Your task to perform on an android device: Search for Italian restaurants on Maps Image 0: 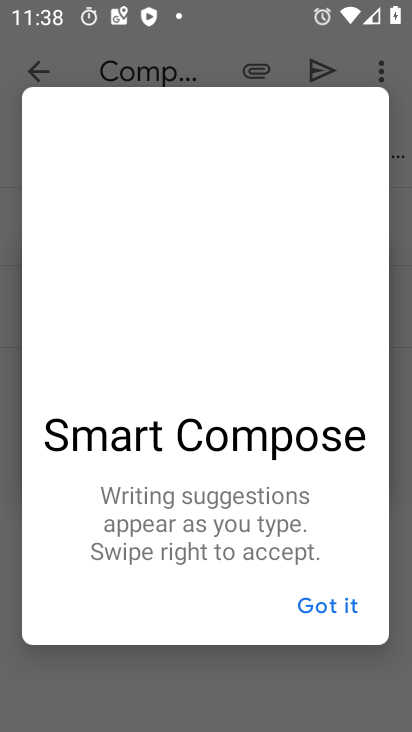
Step 0: press home button
Your task to perform on an android device: Search for Italian restaurants on Maps Image 1: 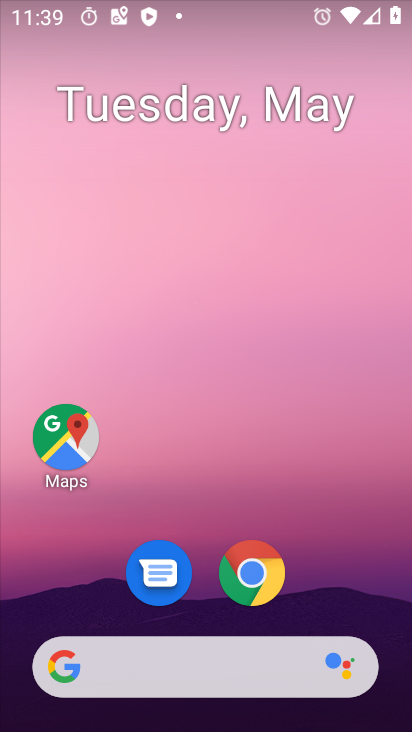
Step 1: drag from (223, 706) to (283, 327)
Your task to perform on an android device: Search for Italian restaurants on Maps Image 2: 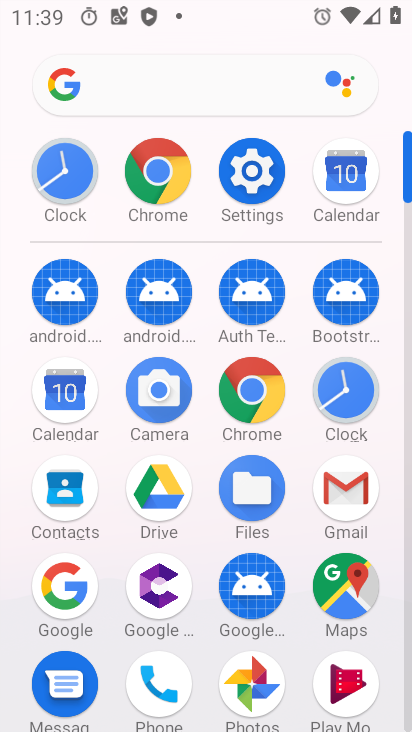
Step 2: click (336, 581)
Your task to perform on an android device: Search for Italian restaurants on Maps Image 3: 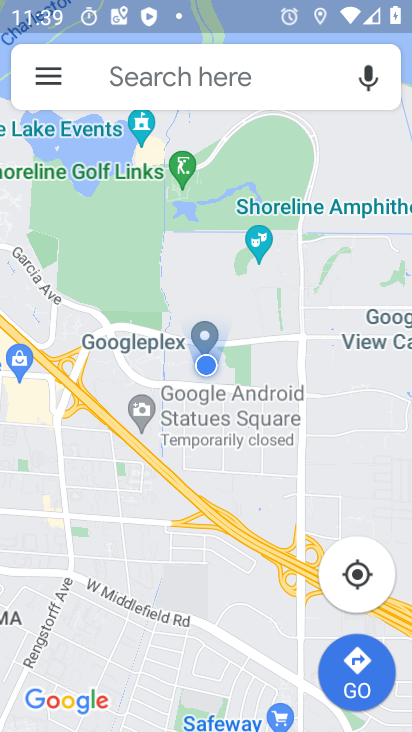
Step 3: click (178, 79)
Your task to perform on an android device: Search for Italian restaurants on Maps Image 4: 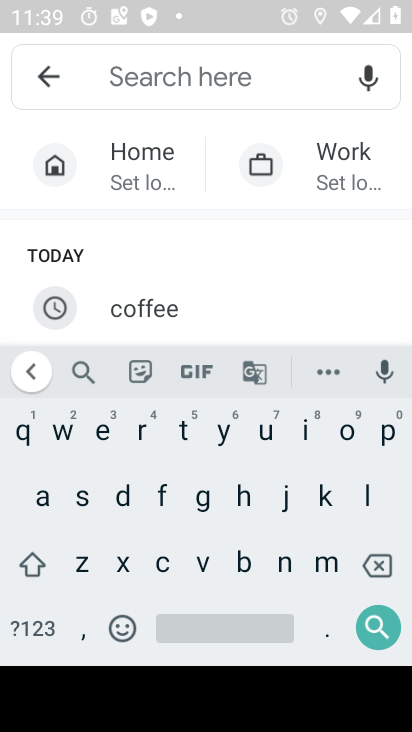
Step 4: click (300, 445)
Your task to perform on an android device: Search for Italian restaurants on Maps Image 5: 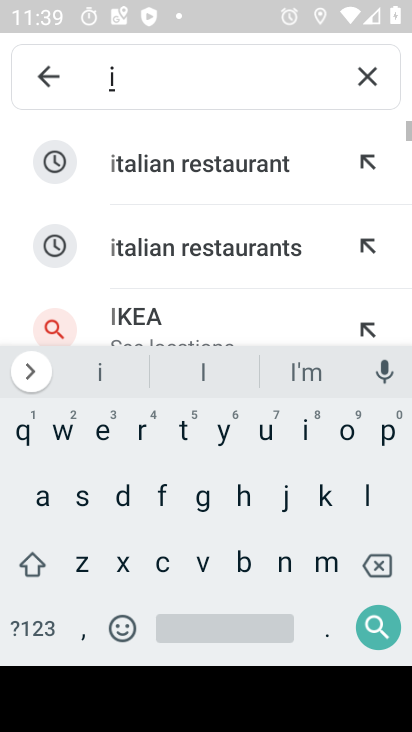
Step 5: click (192, 154)
Your task to perform on an android device: Search for Italian restaurants on Maps Image 6: 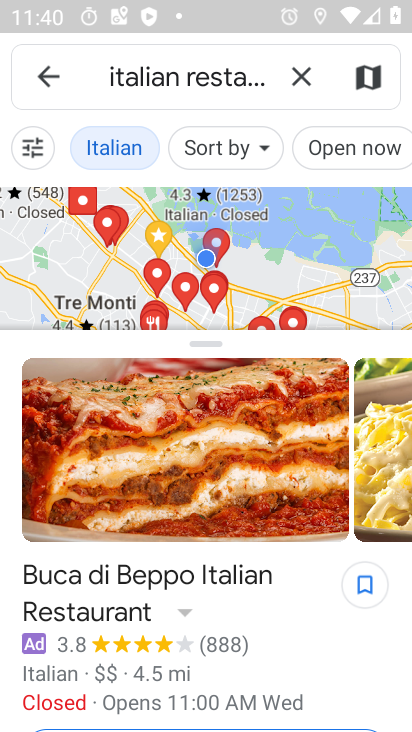
Step 6: click (103, 264)
Your task to perform on an android device: Search for Italian restaurants on Maps Image 7: 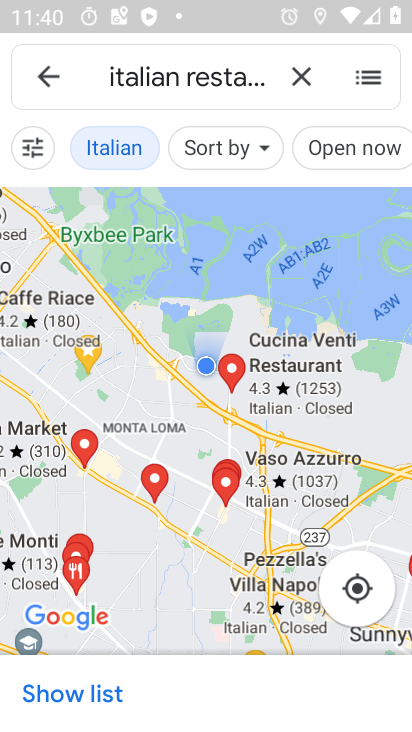
Step 7: task complete